Your task to perform on an android device: Open Google Image 0: 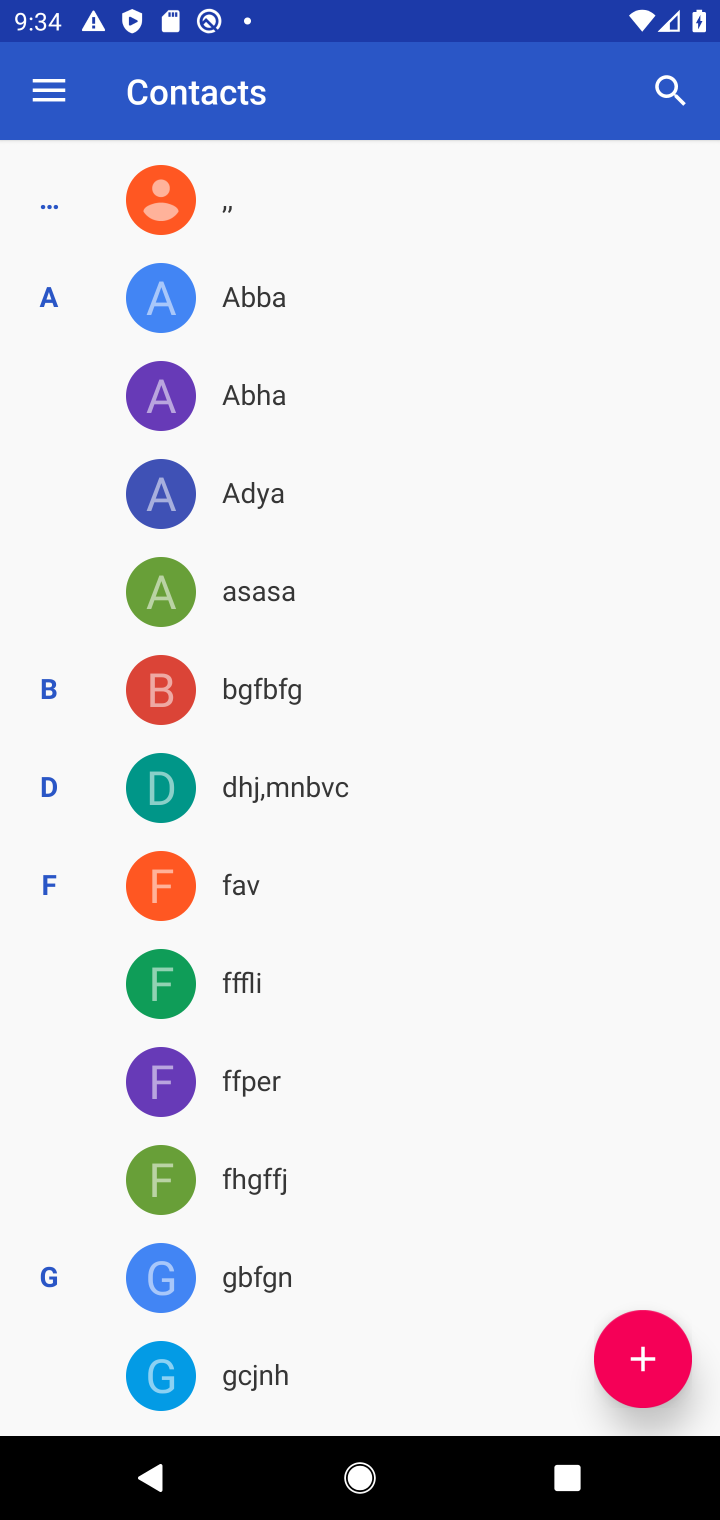
Step 0: press home button
Your task to perform on an android device: Open Google Image 1: 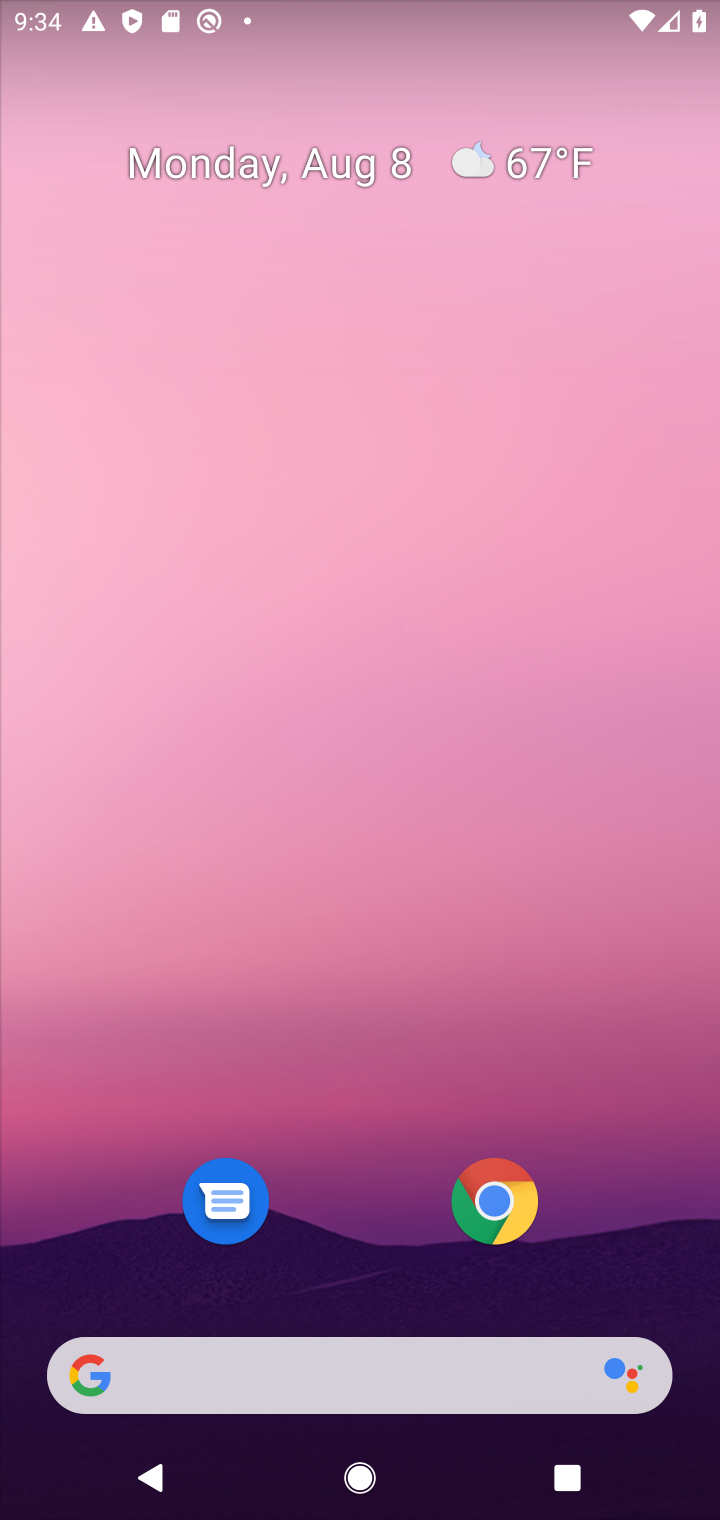
Step 1: drag from (379, 1171) to (497, 250)
Your task to perform on an android device: Open Google Image 2: 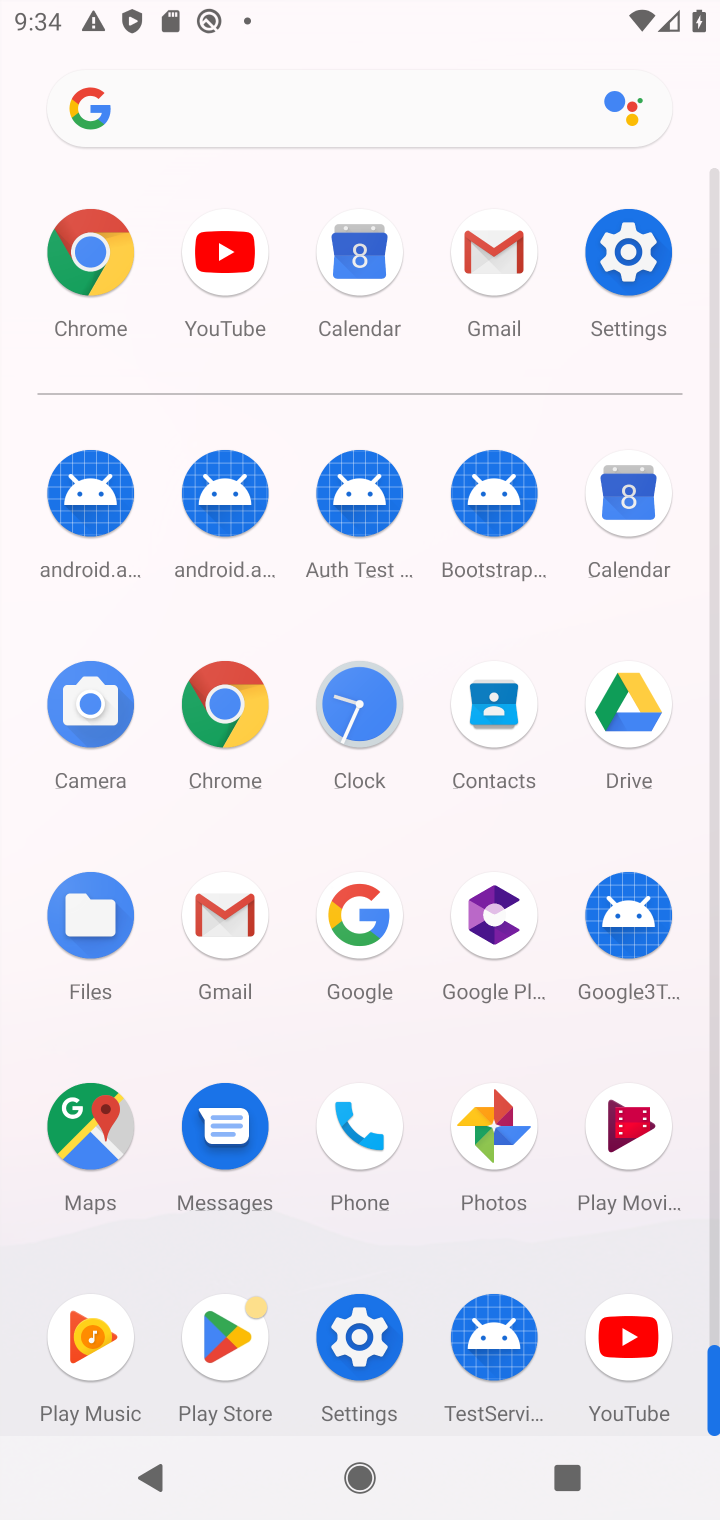
Step 2: click (364, 919)
Your task to perform on an android device: Open Google Image 3: 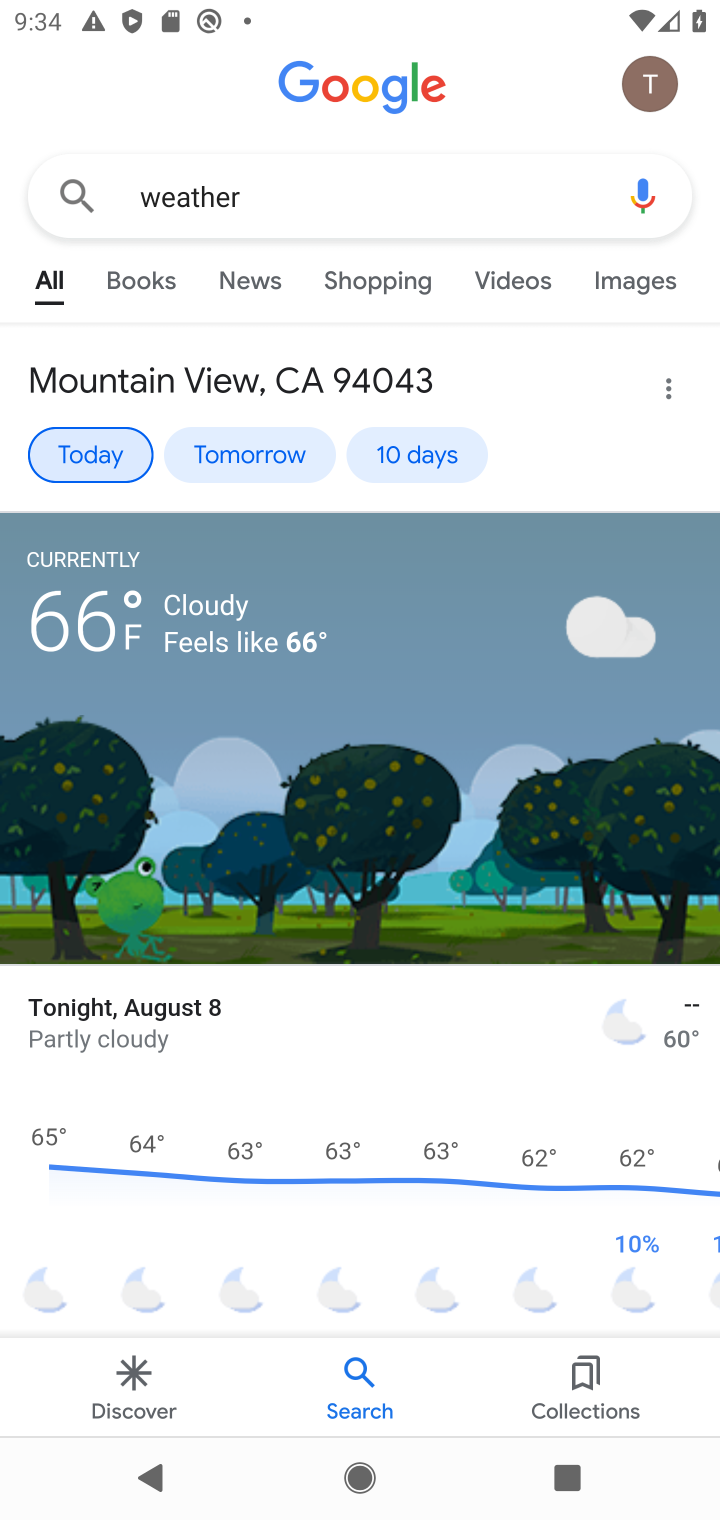
Step 3: task complete